Your task to perform on an android device: What's the weather going to be this weekend? Image 0: 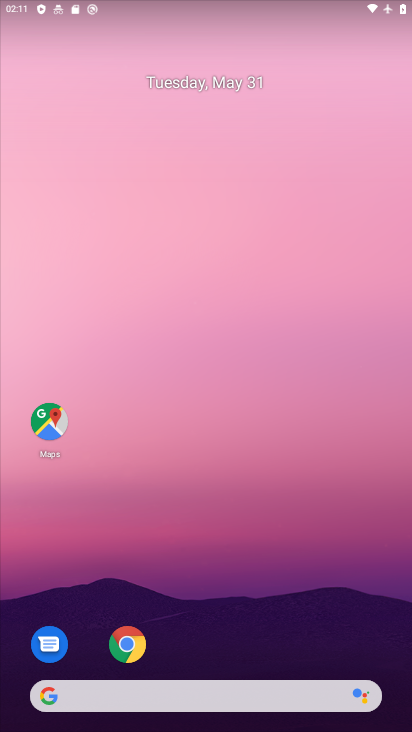
Step 0: drag from (253, 612) to (222, 184)
Your task to perform on an android device: What's the weather going to be this weekend? Image 1: 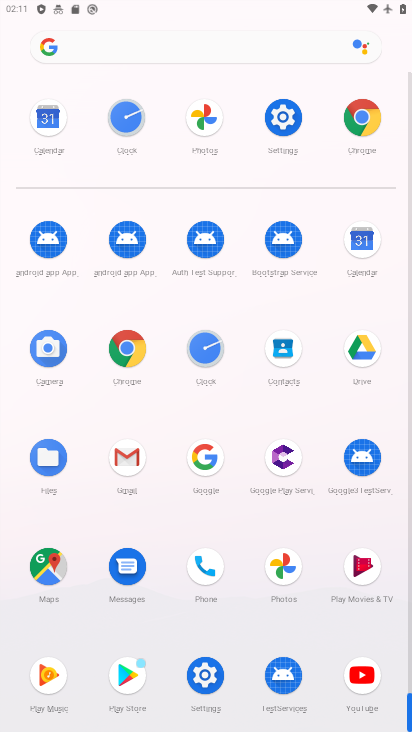
Step 1: click (356, 236)
Your task to perform on an android device: What's the weather going to be this weekend? Image 2: 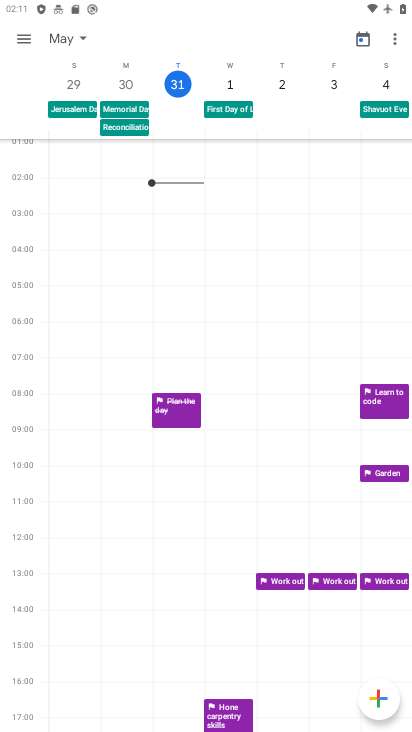
Step 2: press home button
Your task to perform on an android device: What's the weather going to be this weekend? Image 3: 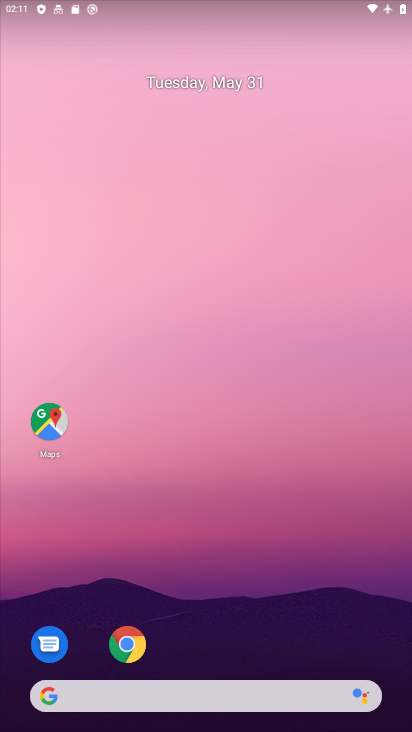
Step 3: click (129, 648)
Your task to perform on an android device: What's the weather going to be this weekend? Image 4: 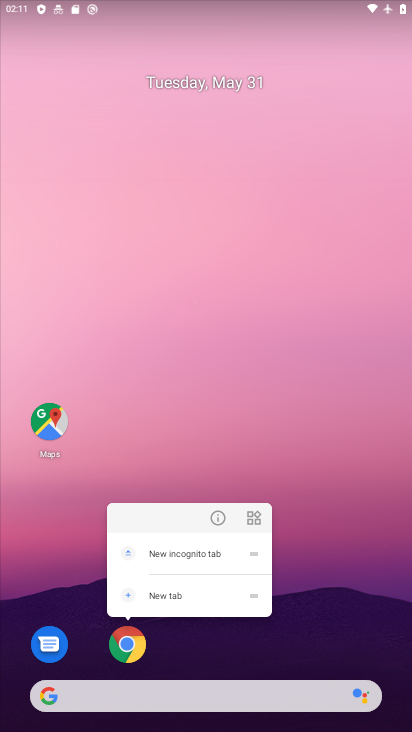
Step 4: click (128, 646)
Your task to perform on an android device: What's the weather going to be this weekend? Image 5: 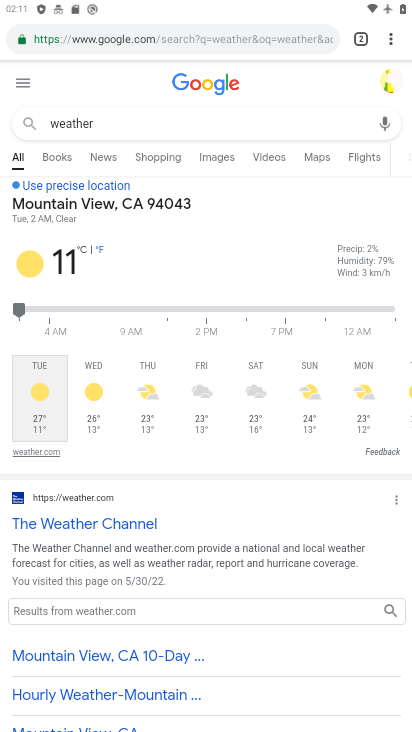
Step 5: click (199, 368)
Your task to perform on an android device: What's the weather going to be this weekend? Image 6: 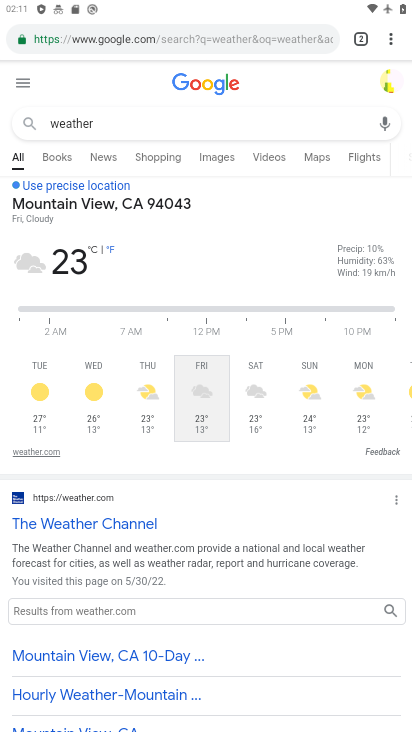
Step 6: task complete